Your task to perform on an android device: change your default location settings in chrome Image 0: 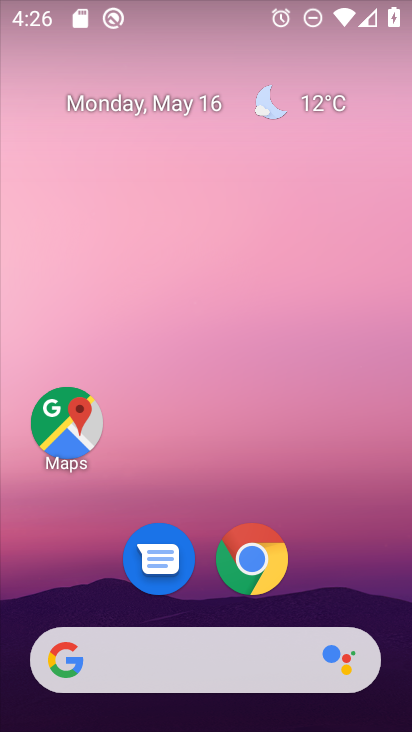
Step 0: click (289, 565)
Your task to perform on an android device: change your default location settings in chrome Image 1: 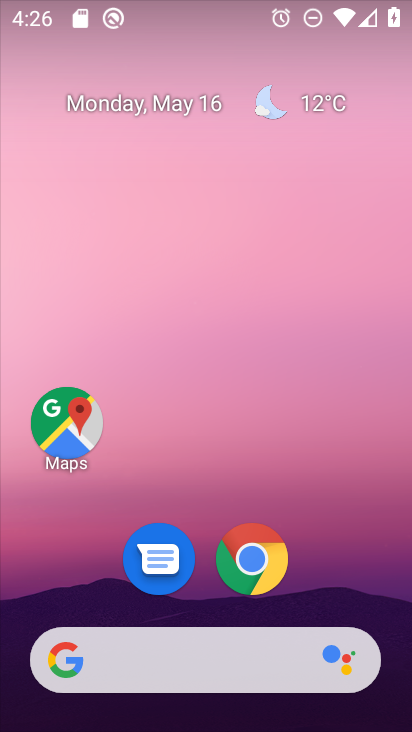
Step 1: click (289, 565)
Your task to perform on an android device: change your default location settings in chrome Image 2: 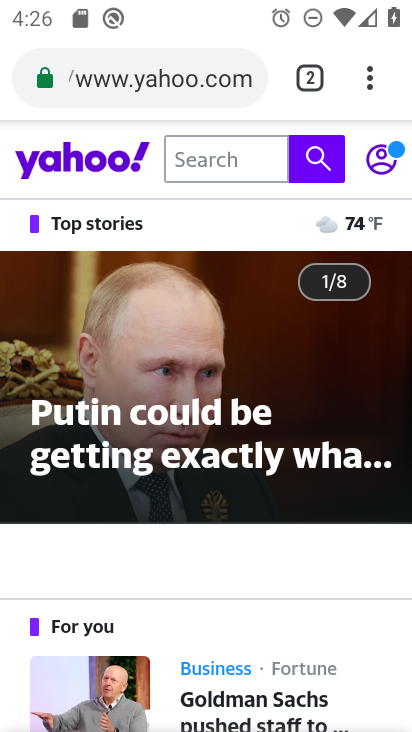
Step 2: click (359, 73)
Your task to perform on an android device: change your default location settings in chrome Image 3: 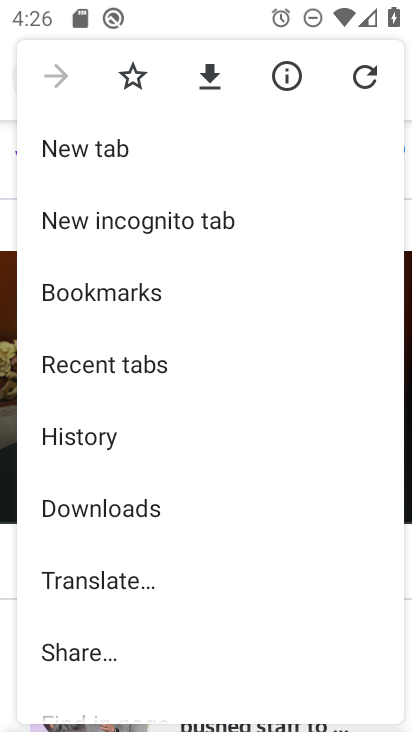
Step 3: drag from (117, 656) to (154, 423)
Your task to perform on an android device: change your default location settings in chrome Image 4: 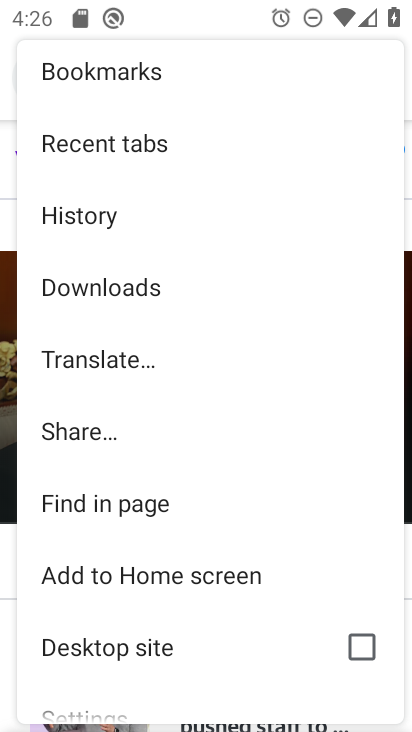
Step 4: click (119, 705)
Your task to perform on an android device: change your default location settings in chrome Image 5: 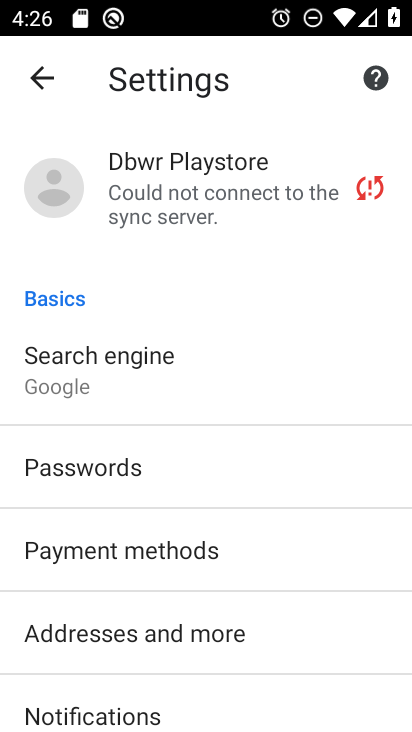
Step 5: click (174, 629)
Your task to perform on an android device: change your default location settings in chrome Image 6: 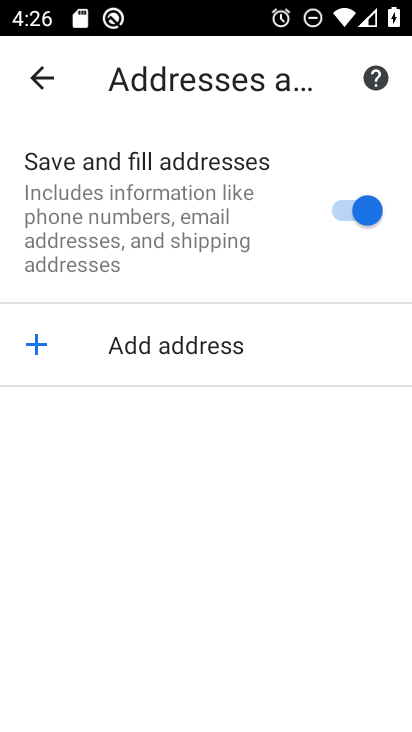
Step 6: task complete